Your task to perform on an android device: star an email in the gmail app Image 0: 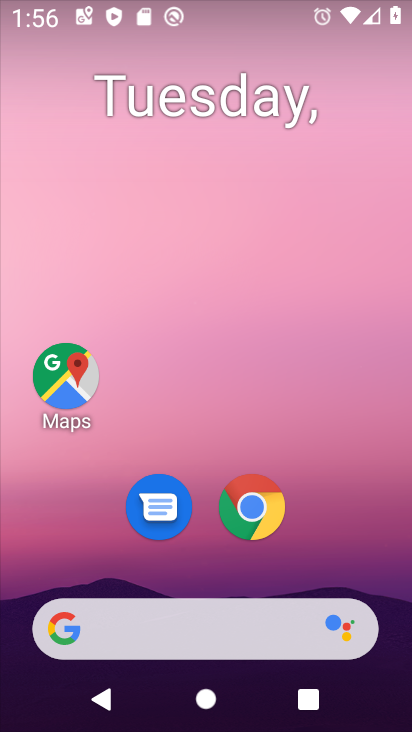
Step 0: drag from (335, 602) to (319, 234)
Your task to perform on an android device: star an email in the gmail app Image 1: 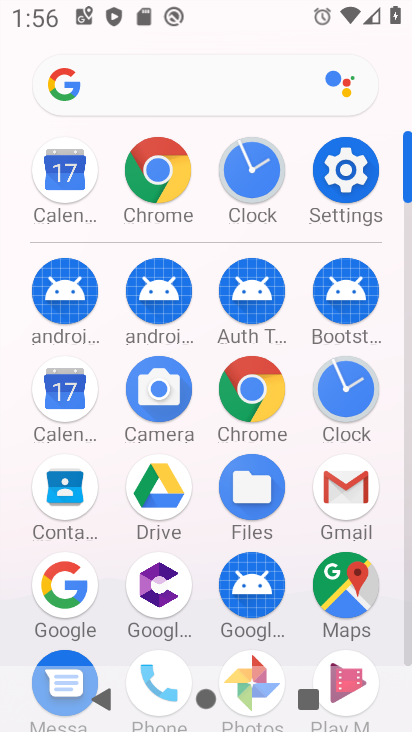
Step 1: drag from (334, 580) to (301, 461)
Your task to perform on an android device: star an email in the gmail app Image 2: 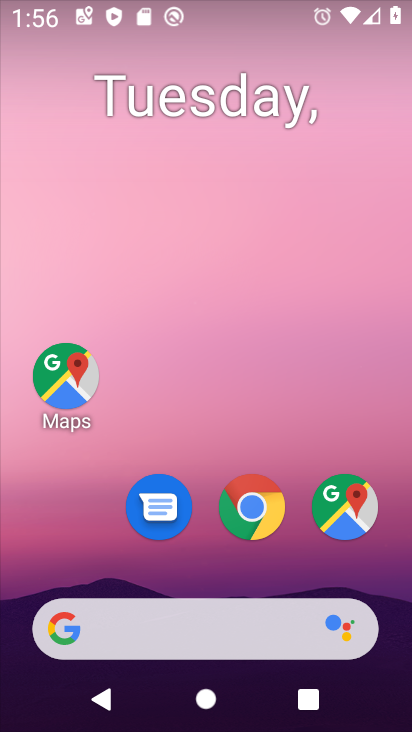
Step 2: drag from (199, 553) to (242, 267)
Your task to perform on an android device: star an email in the gmail app Image 3: 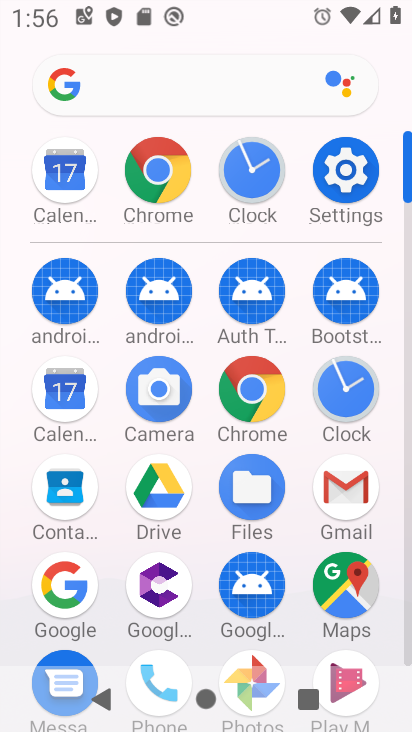
Step 3: click (348, 488)
Your task to perform on an android device: star an email in the gmail app Image 4: 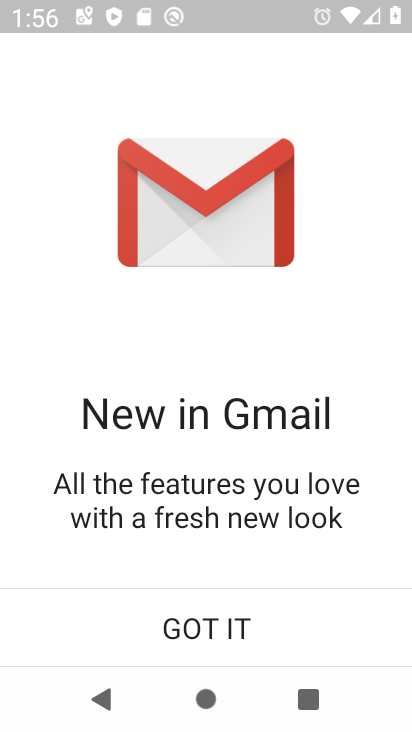
Step 4: click (255, 631)
Your task to perform on an android device: star an email in the gmail app Image 5: 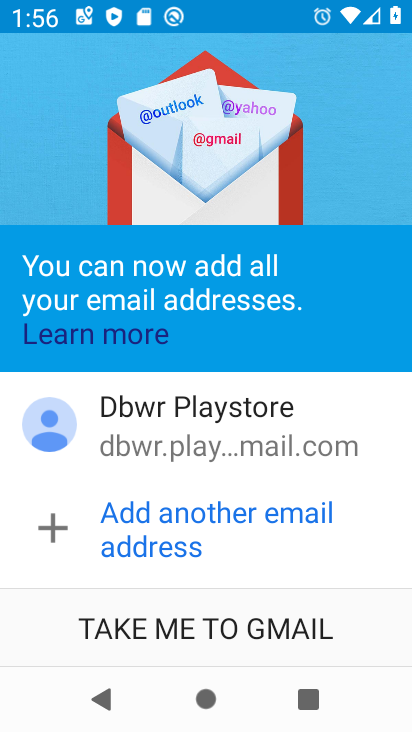
Step 5: click (162, 643)
Your task to perform on an android device: star an email in the gmail app Image 6: 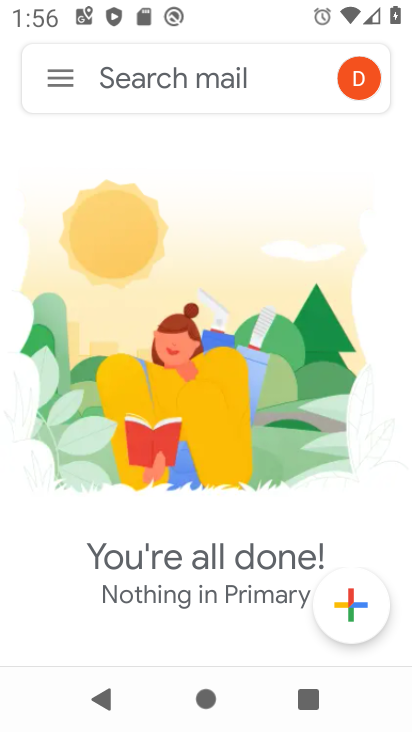
Step 6: click (67, 75)
Your task to perform on an android device: star an email in the gmail app Image 7: 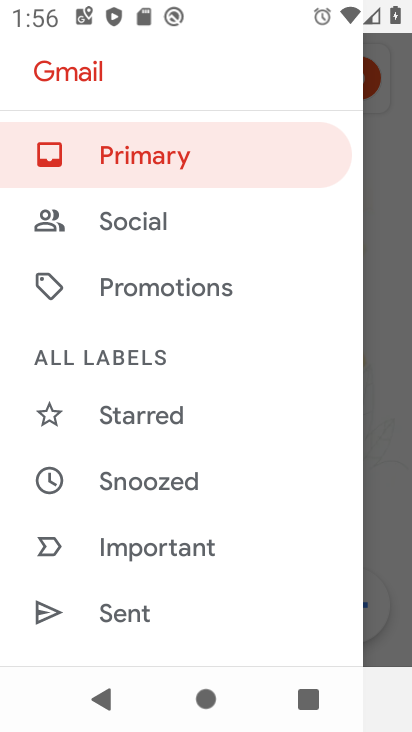
Step 7: click (142, 426)
Your task to perform on an android device: star an email in the gmail app Image 8: 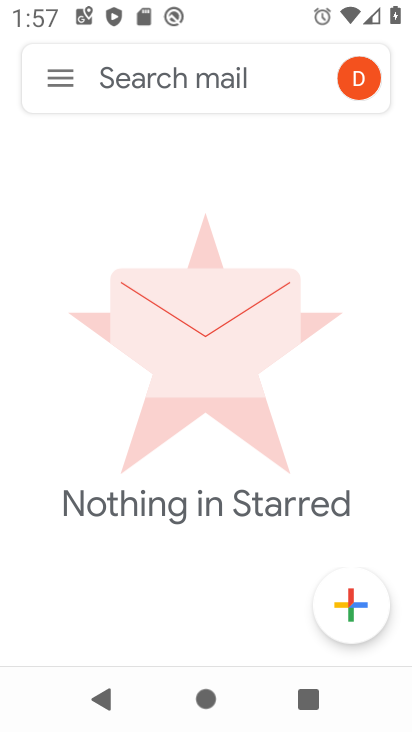
Step 8: task complete